Your task to perform on an android device: open chrome privacy settings Image 0: 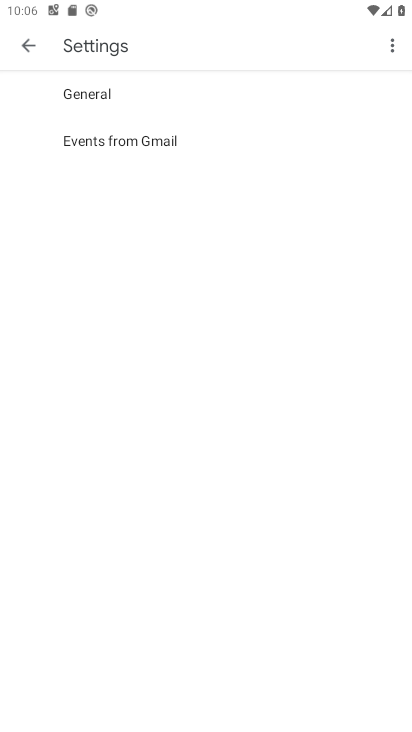
Step 0: press home button
Your task to perform on an android device: open chrome privacy settings Image 1: 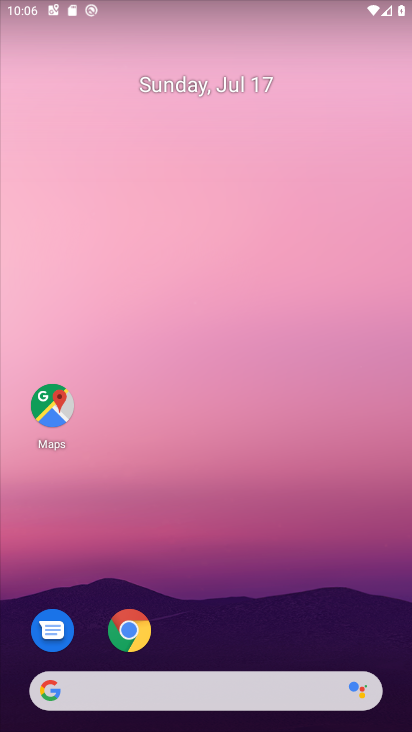
Step 1: click (139, 627)
Your task to perform on an android device: open chrome privacy settings Image 2: 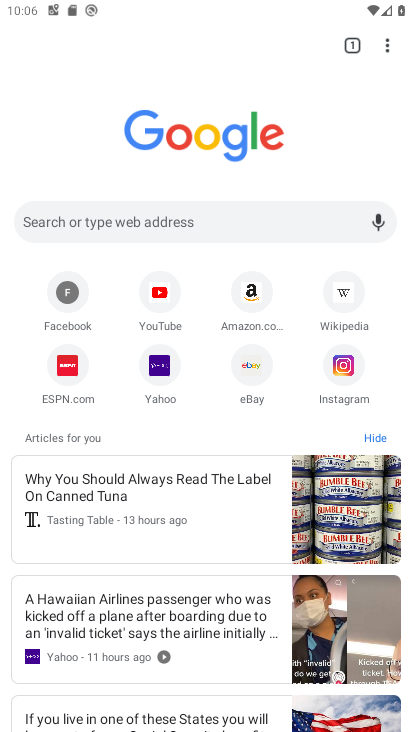
Step 2: click (388, 48)
Your task to perform on an android device: open chrome privacy settings Image 3: 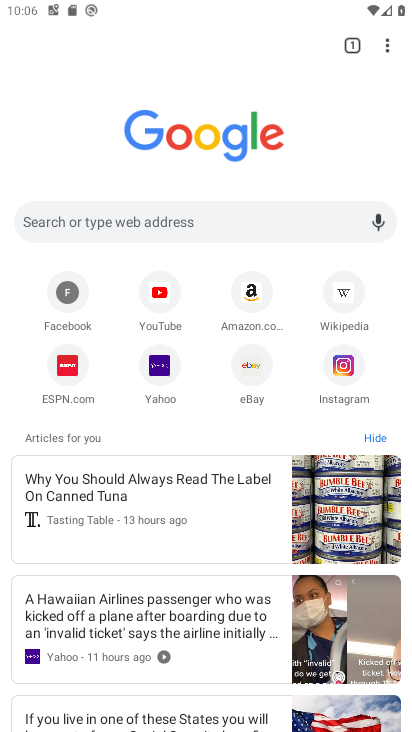
Step 3: click (388, 48)
Your task to perform on an android device: open chrome privacy settings Image 4: 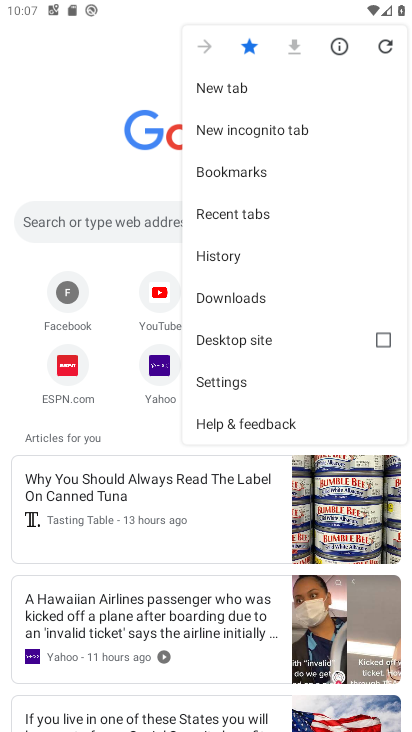
Step 4: click (236, 382)
Your task to perform on an android device: open chrome privacy settings Image 5: 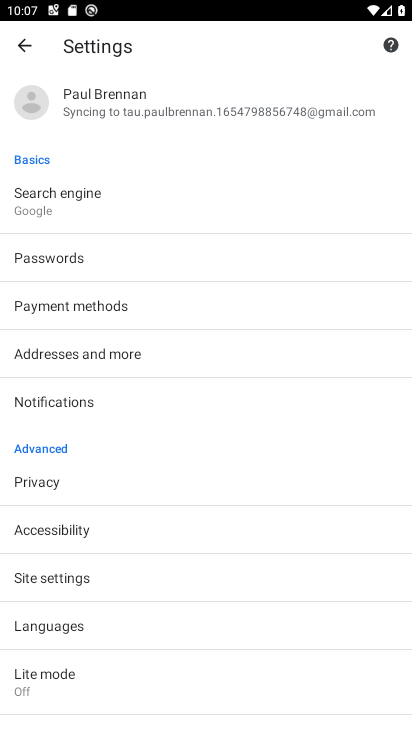
Step 5: click (49, 479)
Your task to perform on an android device: open chrome privacy settings Image 6: 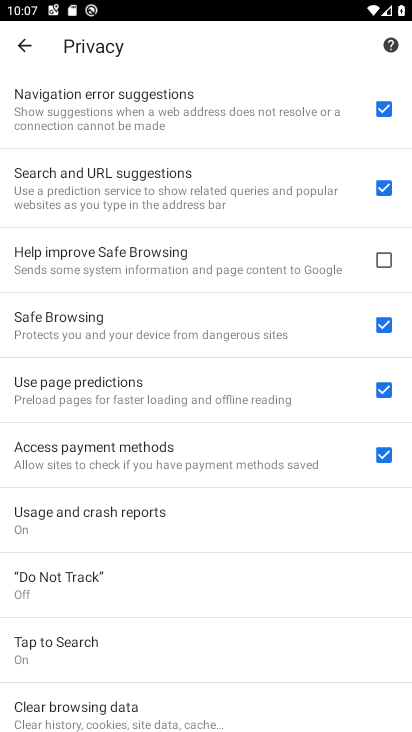
Step 6: task complete